Your task to perform on an android device: Find coffee shops on Maps Image 0: 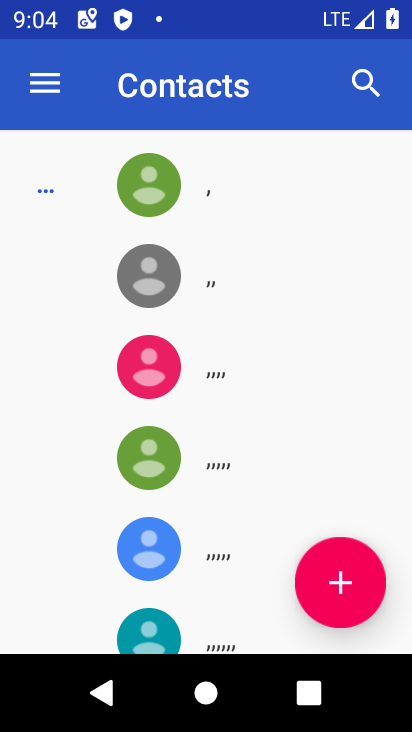
Step 0: press home button
Your task to perform on an android device: Find coffee shops on Maps Image 1: 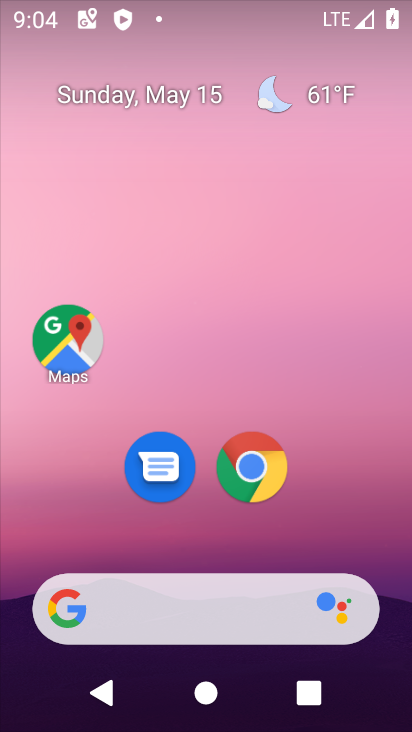
Step 1: click (37, 356)
Your task to perform on an android device: Find coffee shops on Maps Image 2: 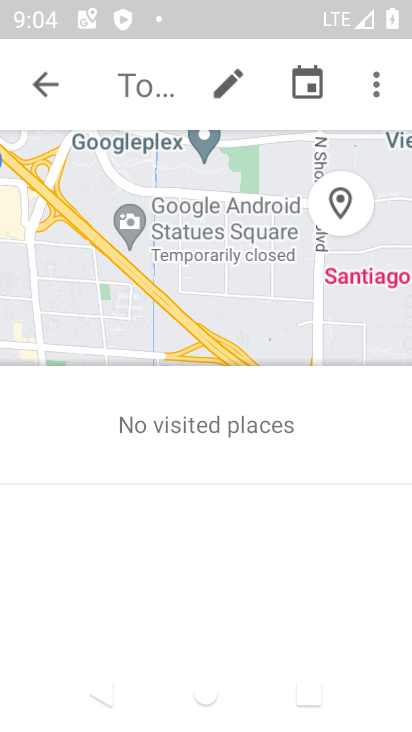
Step 2: click (55, 86)
Your task to perform on an android device: Find coffee shops on Maps Image 3: 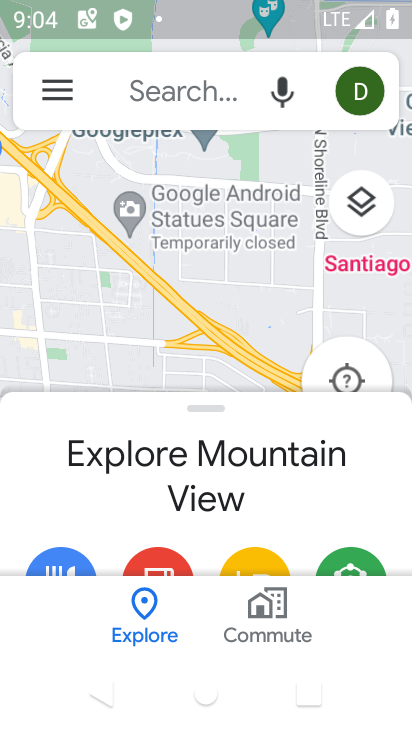
Step 3: click (184, 100)
Your task to perform on an android device: Find coffee shops on Maps Image 4: 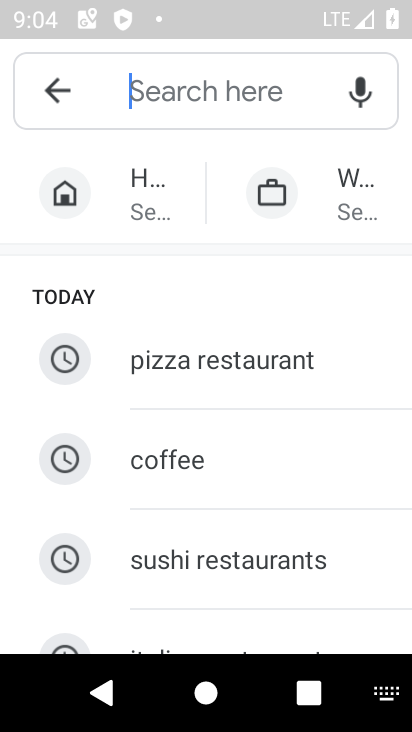
Step 4: click (259, 463)
Your task to perform on an android device: Find coffee shops on Maps Image 5: 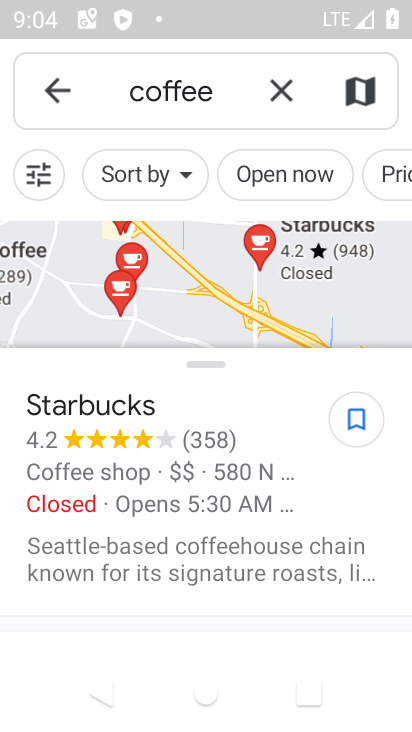
Step 5: task complete